Your task to perform on an android device: turn on improve location accuracy Image 0: 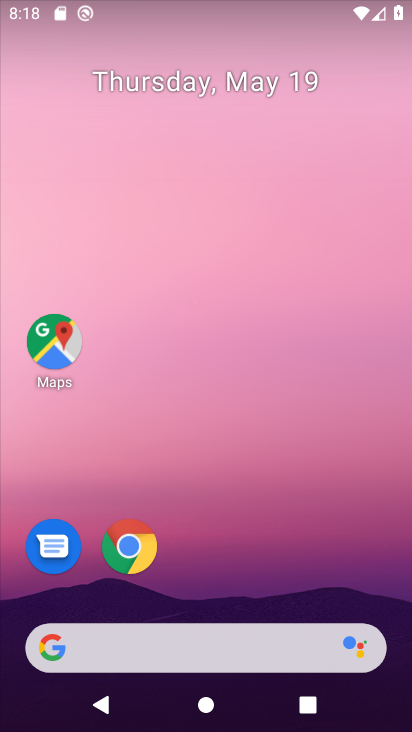
Step 0: drag from (266, 528) to (366, 2)
Your task to perform on an android device: turn on improve location accuracy Image 1: 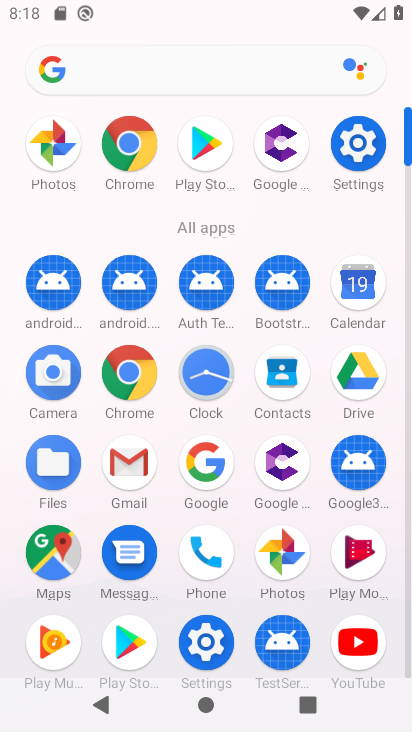
Step 1: click (371, 157)
Your task to perform on an android device: turn on improve location accuracy Image 2: 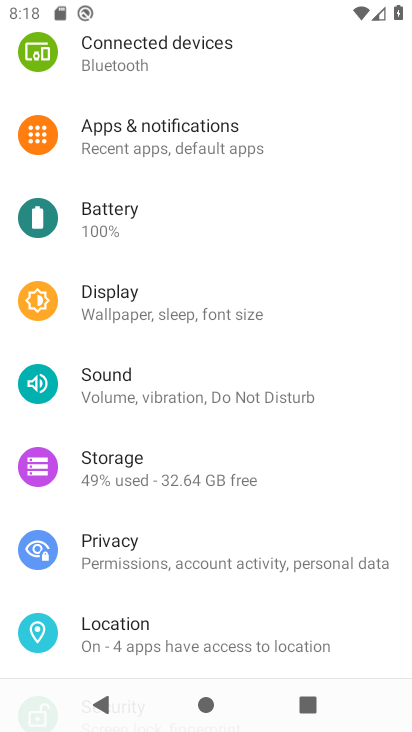
Step 2: drag from (244, 568) to (254, 213)
Your task to perform on an android device: turn on improve location accuracy Image 3: 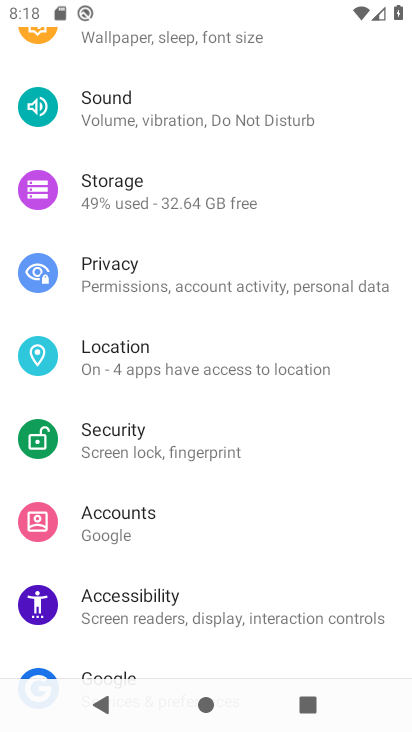
Step 3: click (138, 373)
Your task to perform on an android device: turn on improve location accuracy Image 4: 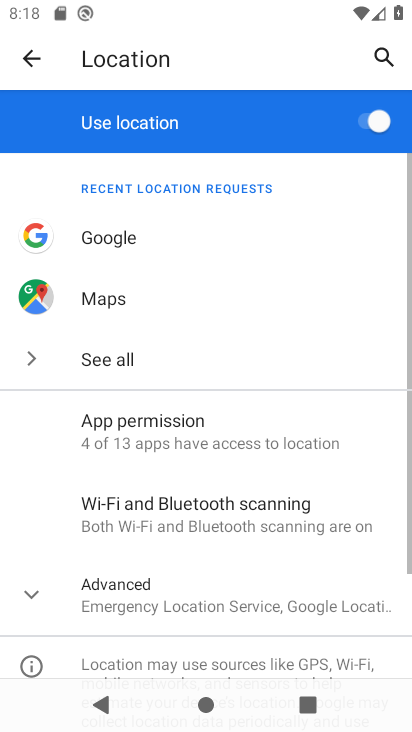
Step 4: drag from (226, 579) to (245, 258)
Your task to perform on an android device: turn on improve location accuracy Image 5: 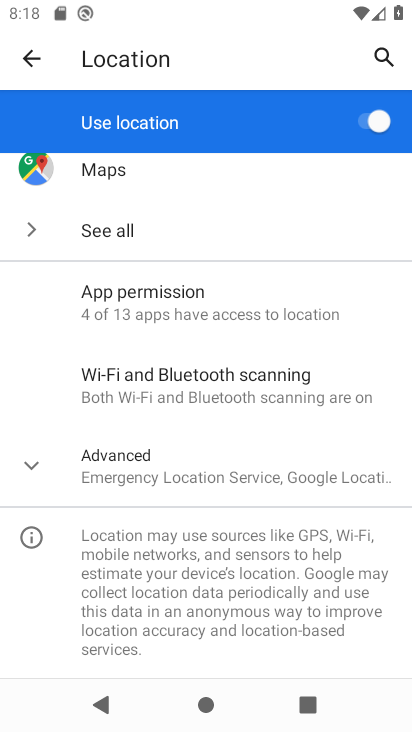
Step 5: click (181, 477)
Your task to perform on an android device: turn on improve location accuracy Image 6: 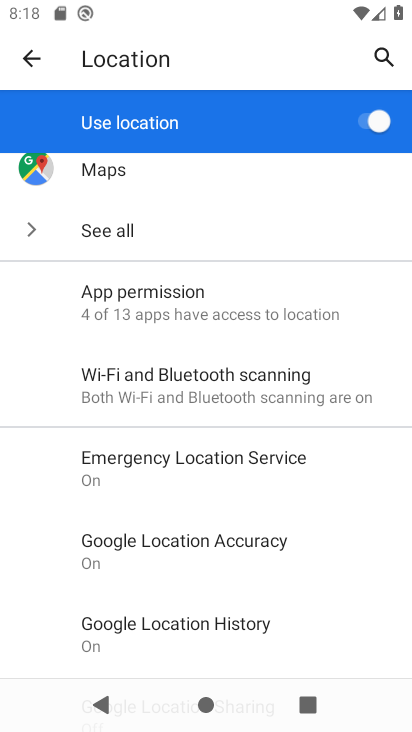
Step 6: click (173, 549)
Your task to perform on an android device: turn on improve location accuracy Image 7: 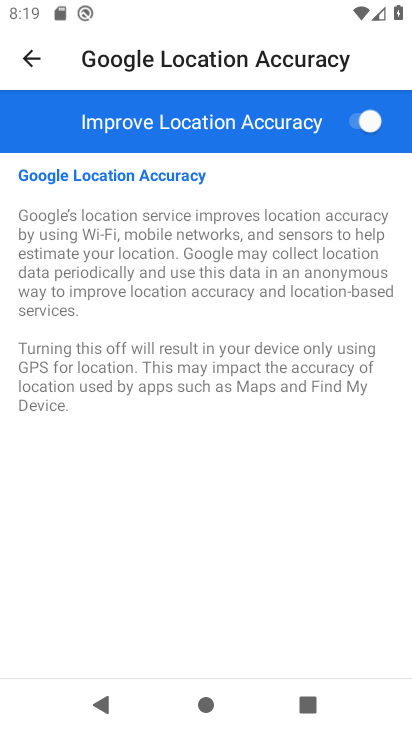
Step 7: task complete